Your task to perform on an android device: move an email to a new category in the gmail app Image 0: 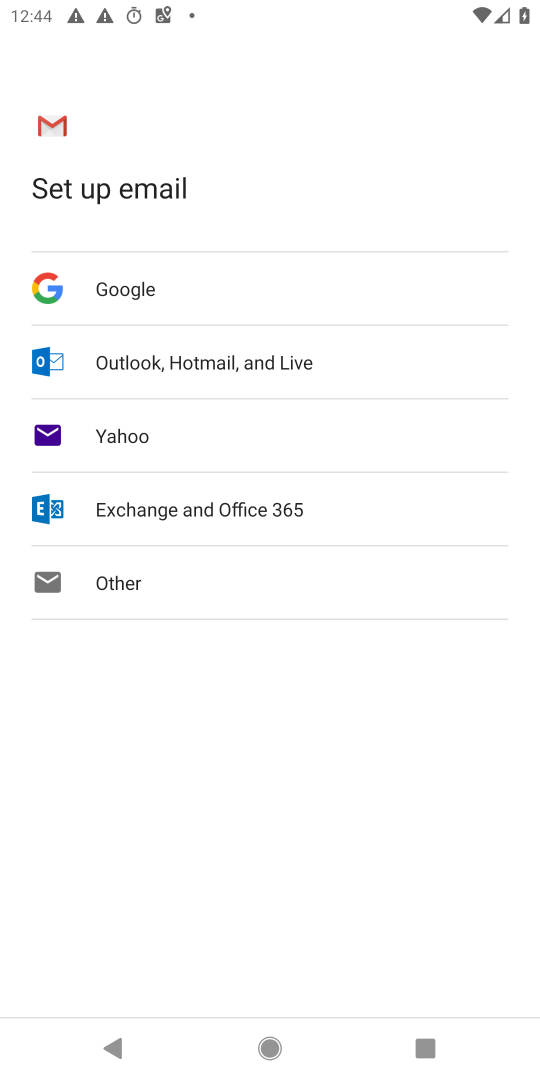
Step 0: press home button
Your task to perform on an android device: move an email to a new category in the gmail app Image 1: 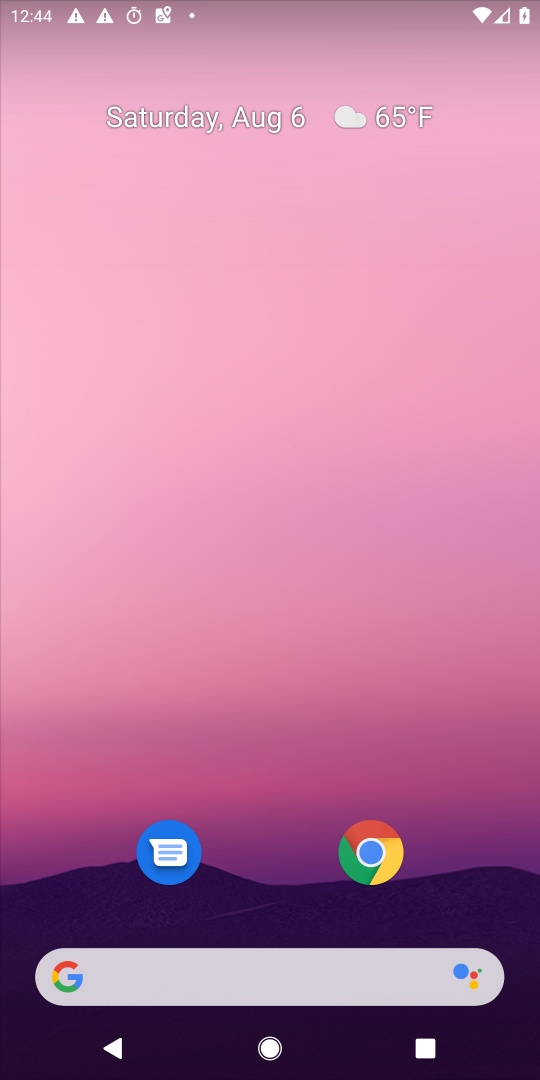
Step 1: drag from (364, 953) to (411, 194)
Your task to perform on an android device: move an email to a new category in the gmail app Image 2: 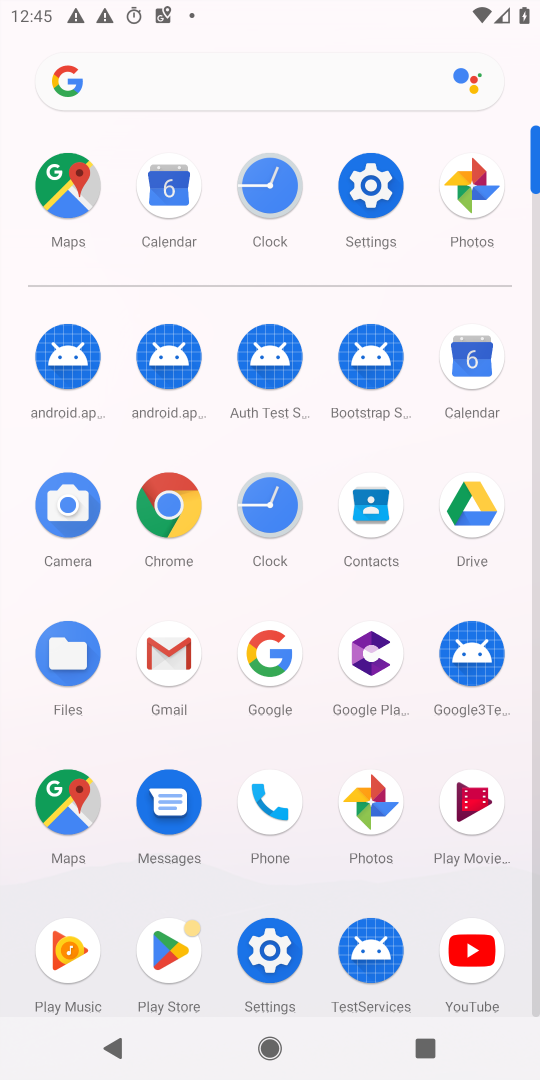
Step 2: click (163, 648)
Your task to perform on an android device: move an email to a new category in the gmail app Image 3: 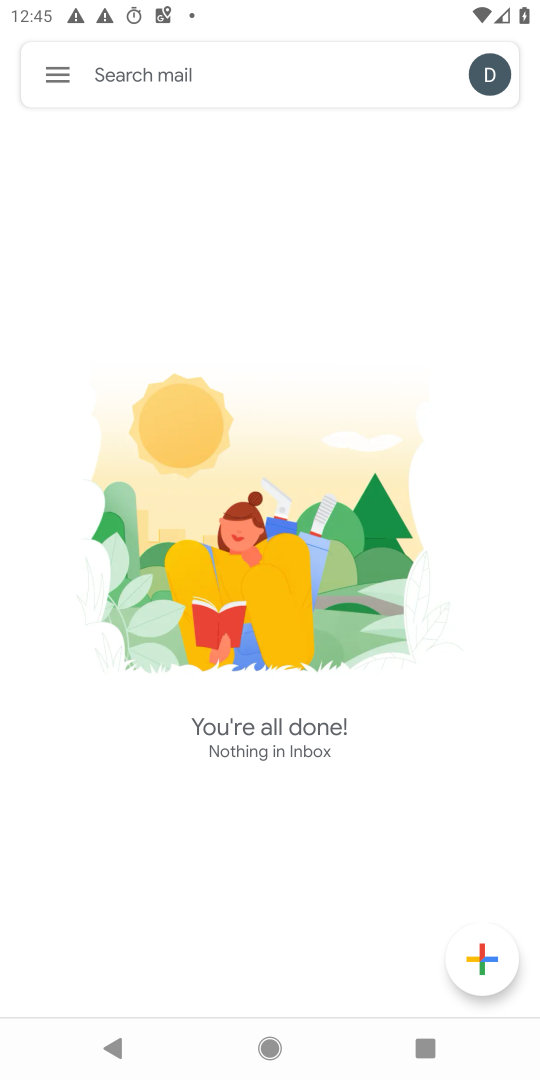
Step 3: click (486, 81)
Your task to perform on an android device: move an email to a new category in the gmail app Image 4: 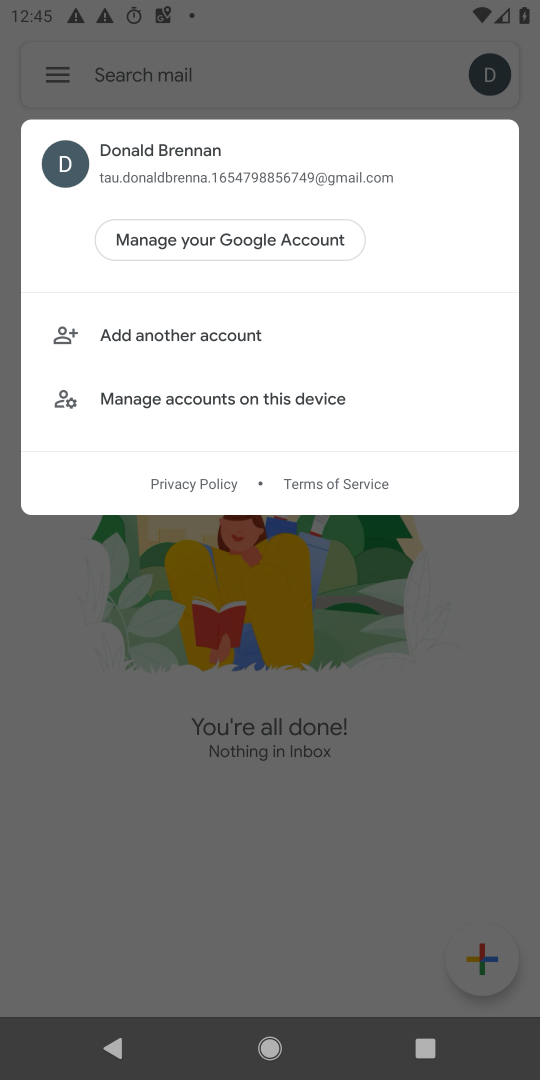
Step 4: click (187, 710)
Your task to perform on an android device: move an email to a new category in the gmail app Image 5: 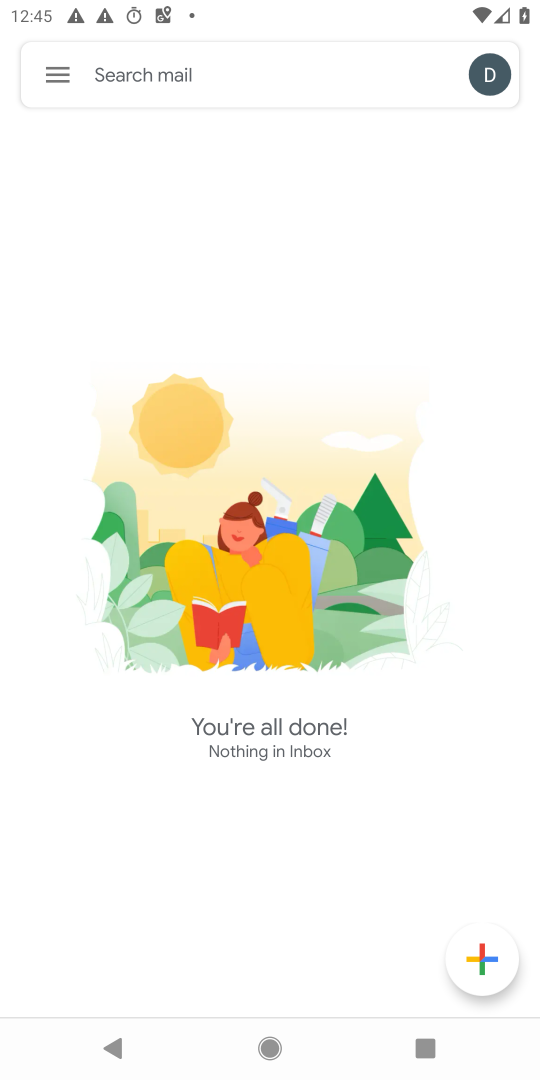
Step 5: click (67, 78)
Your task to perform on an android device: move an email to a new category in the gmail app Image 6: 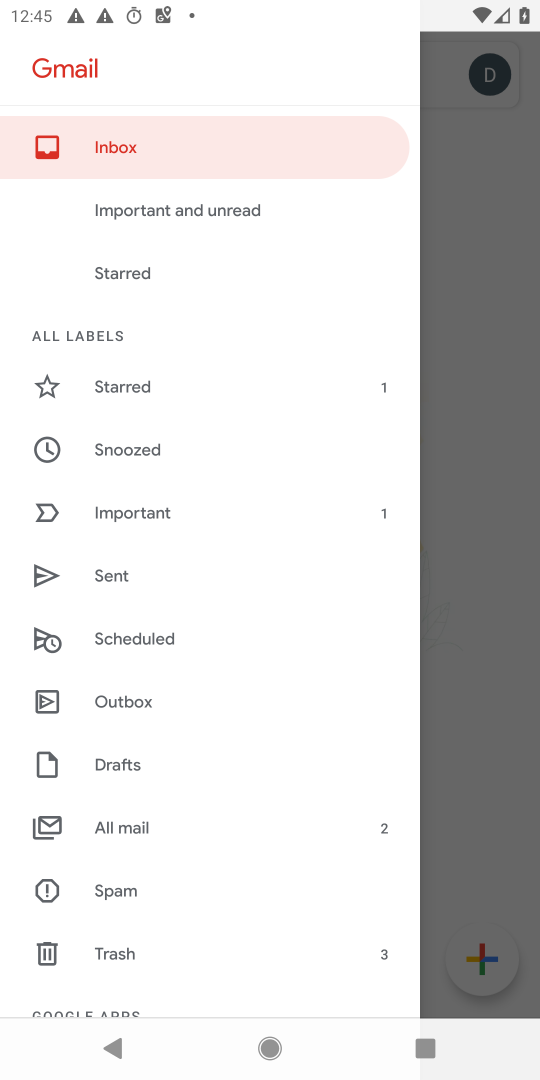
Step 6: drag from (112, 885) to (211, 587)
Your task to perform on an android device: move an email to a new category in the gmail app Image 7: 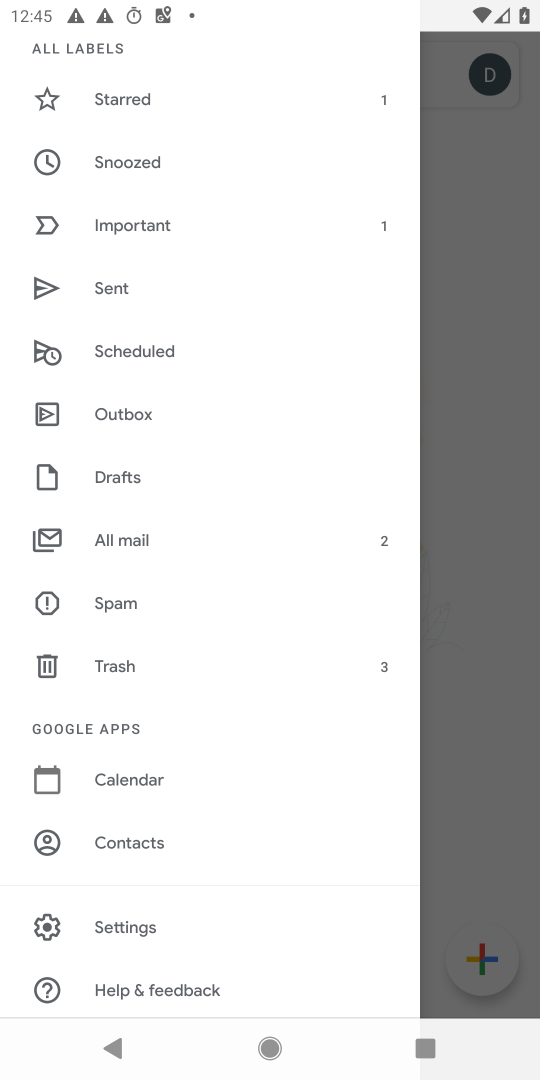
Step 7: click (137, 930)
Your task to perform on an android device: move an email to a new category in the gmail app Image 8: 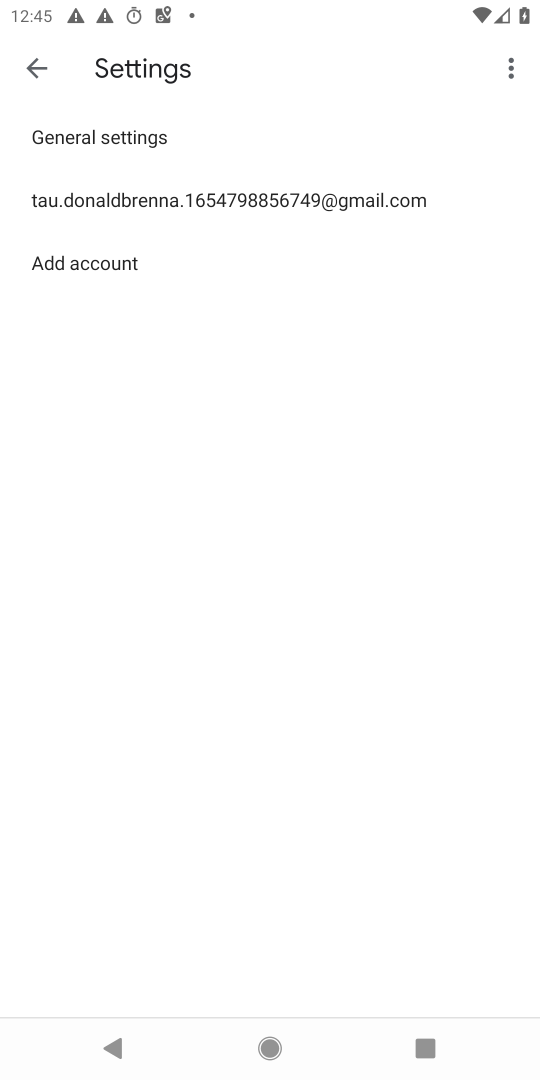
Step 8: click (191, 203)
Your task to perform on an android device: move an email to a new category in the gmail app Image 9: 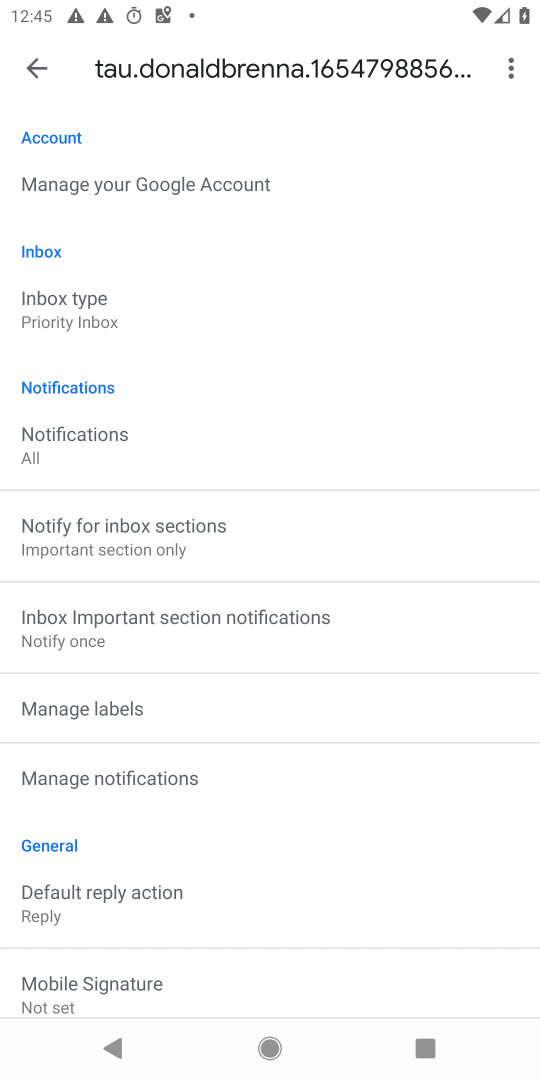
Step 9: click (139, 320)
Your task to perform on an android device: move an email to a new category in the gmail app Image 10: 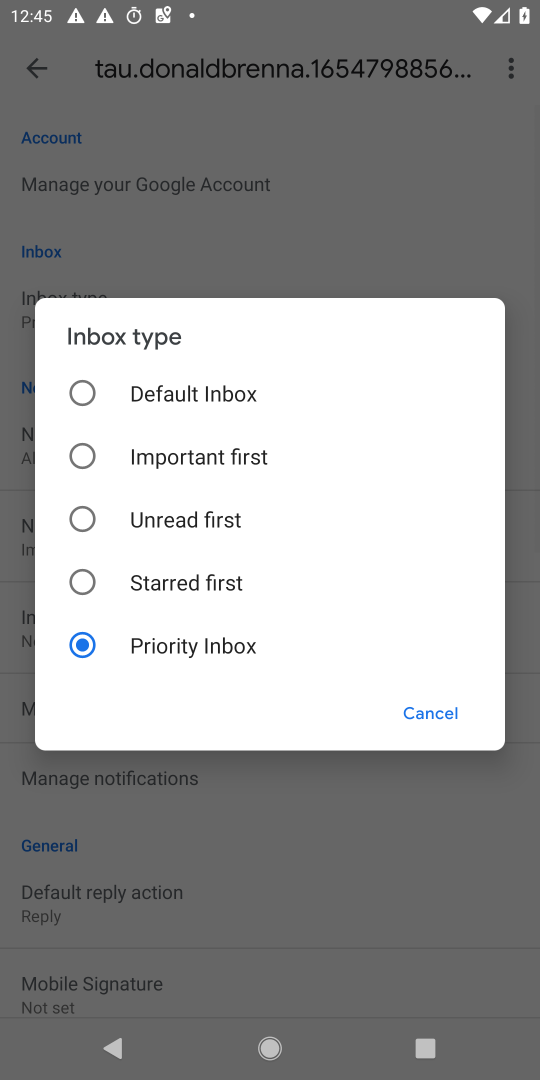
Step 10: click (140, 392)
Your task to perform on an android device: move an email to a new category in the gmail app Image 11: 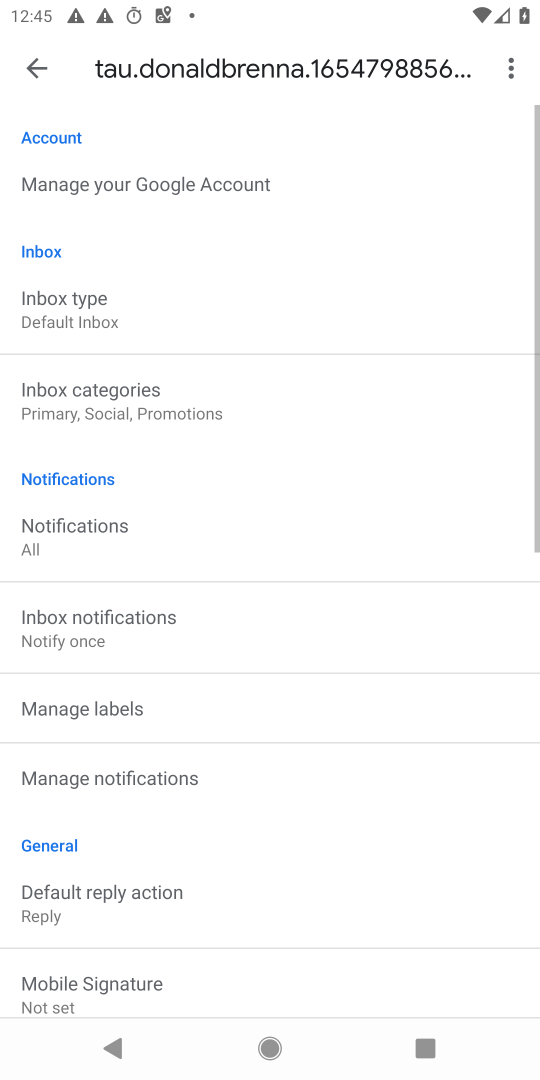
Step 11: click (123, 427)
Your task to perform on an android device: move an email to a new category in the gmail app Image 12: 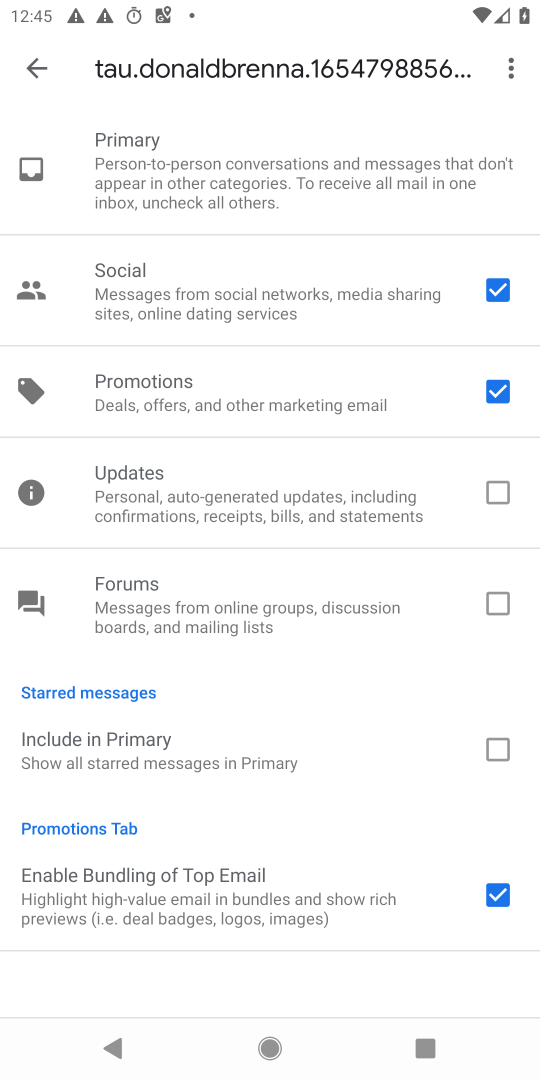
Step 12: click (496, 498)
Your task to perform on an android device: move an email to a new category in the gmail app Image 13: 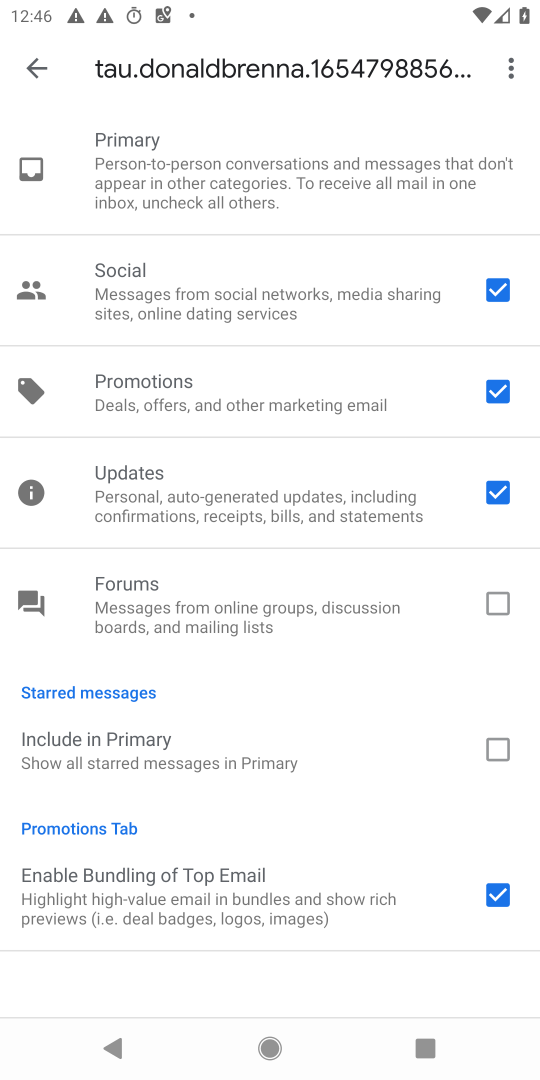
Step 13: task complete